Your task to perform on an android device: turn off location history Image 0: 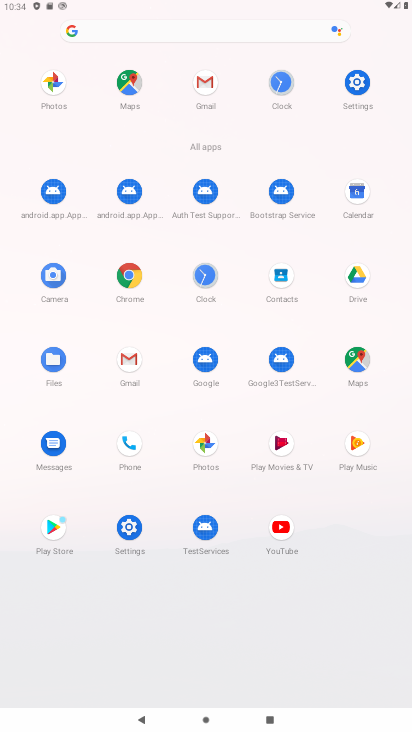
Step 0: click (357, 71)
Your task to perform on an android device: turn off location history Image 1: 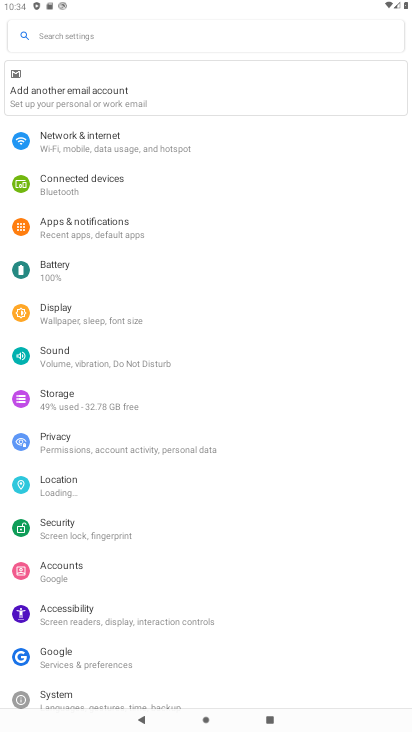
Step 1: click (147, 477)
Your task to perform on an android device: turn off location history Image 2: 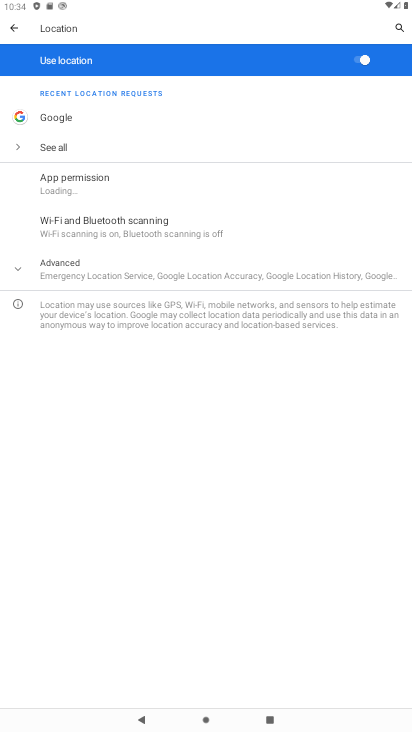
Step 2: click (169, 280)
Your task to perform on an android device: turn off location history Image 3: 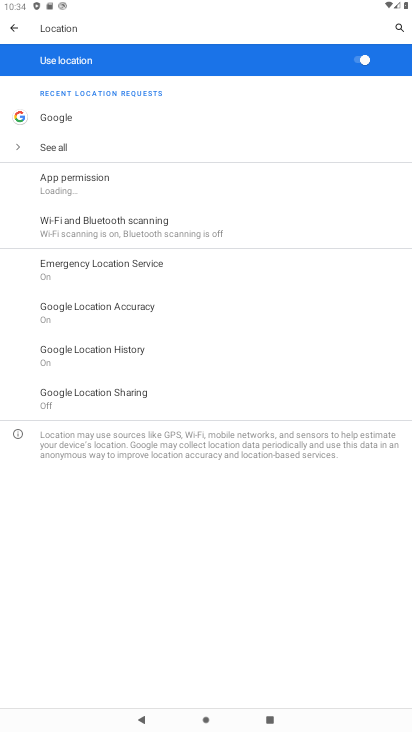
Step 3: click (133, 347)
Your task to perform on an android device: turn off location history Image 4: 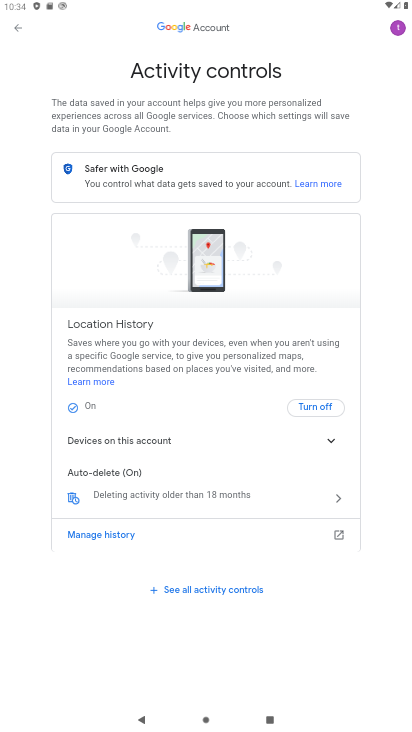
Step 4: click (317, 405)
Your task to perform on an android device: turn off location history Image 5: 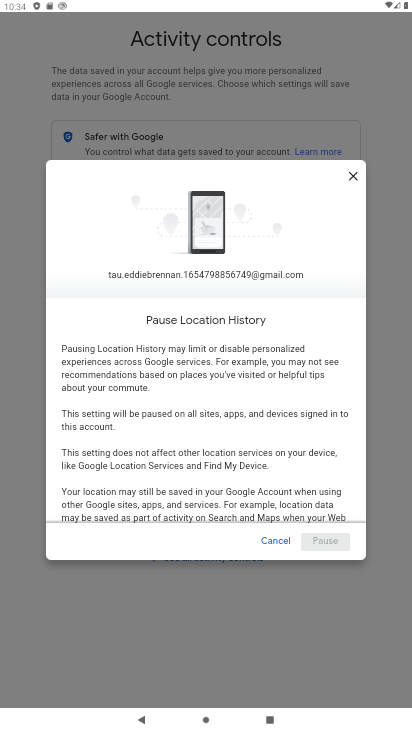
Step 5: drag from (317, 452) to (346, 129)
Your task to perform on an android device: turn off location history Image 6: 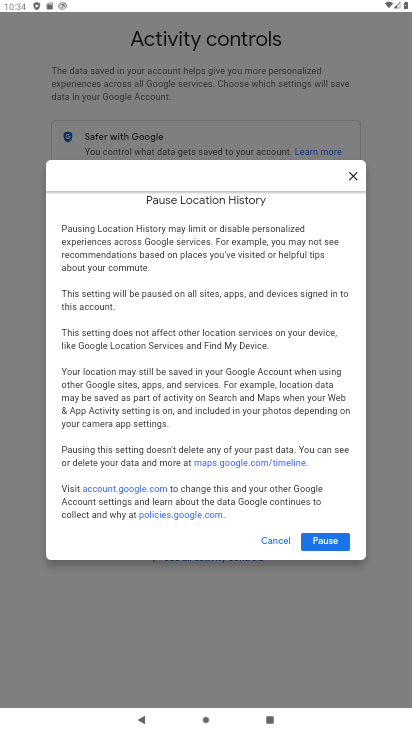
Step 6: click (337, 531)
Your task to perform on an android device: turn off location history Image 7: 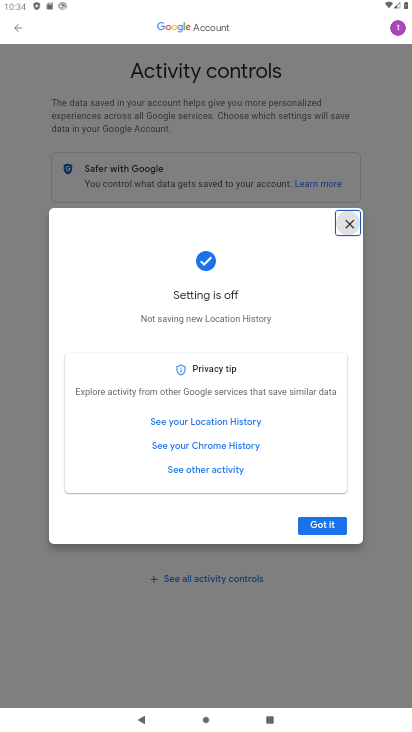
Step 7: click (337, 531)
Your task to perform on an android device: turn off location history Image 8: 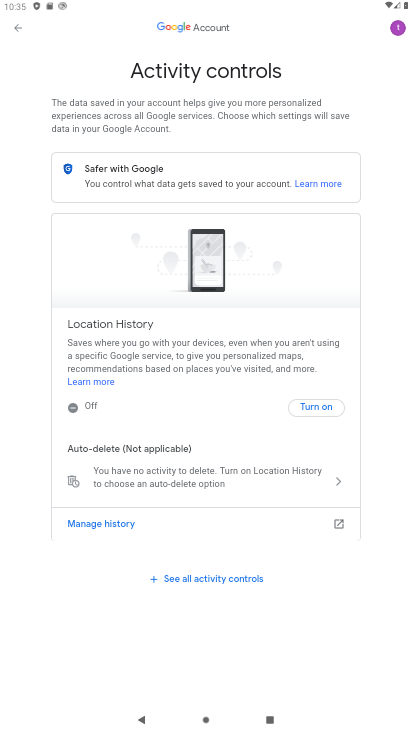
Step 8: task complete